Your task to perform on an android device: uninstall "Yahoo Mail" Image 0: 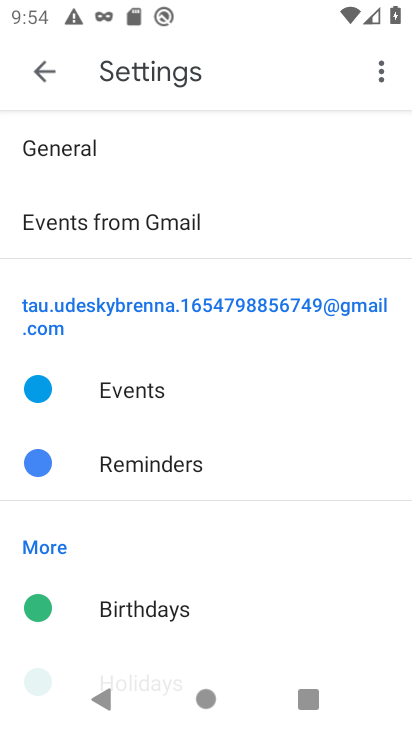
Step 0: press home button
Your task to perform on an android device: uninstall "Yahoo Mail" Image 1: 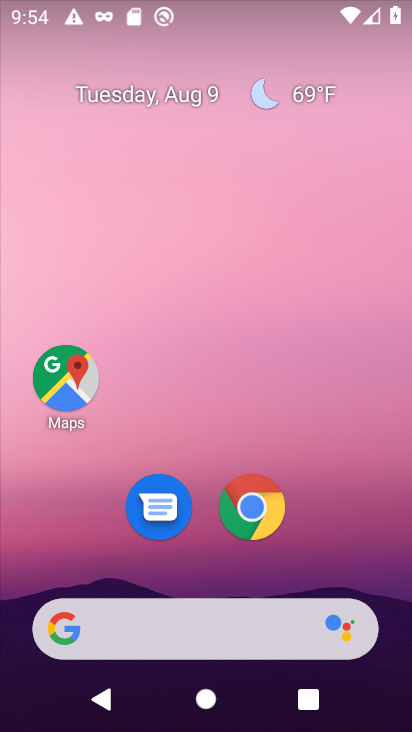
Step 1: drag from (162, 629) to (197, 101)
Your task to perform on an android device: uninstall "Yahoo Mail" Image 2: 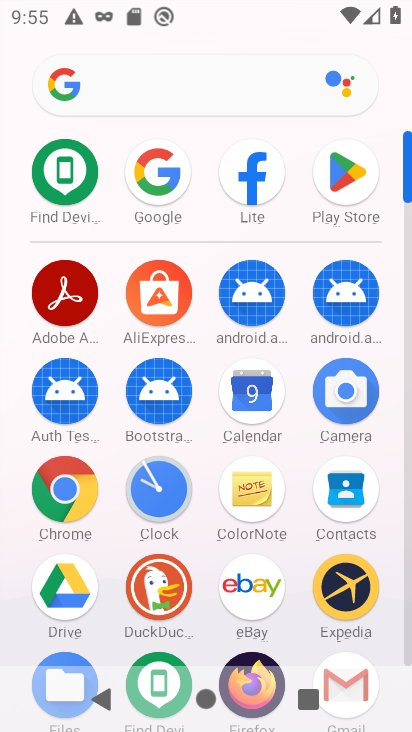
Step 2: click (347, 172)
Your task to perform on an android device: uninstall "Yahoo Mail" Image 3: 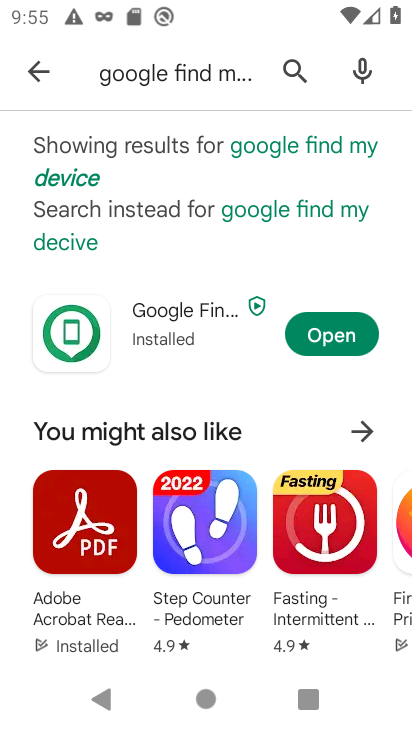
Step 3: click (288, 66)
Your task to perform on an android device: uninstall "Yahoo Mail" Image 4: 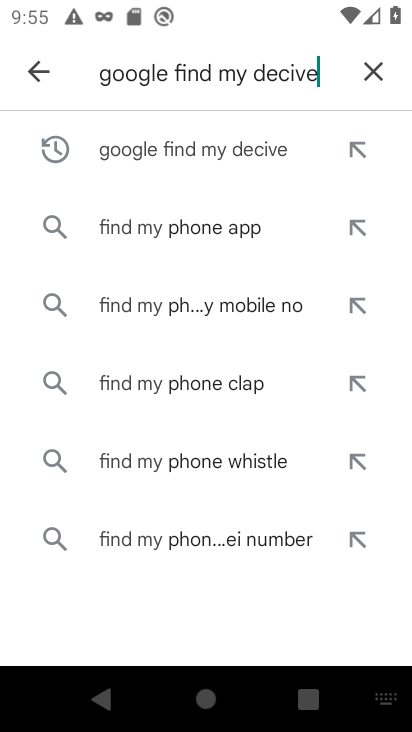
Step 4: click (376, 68)
Your task to perform on an android device: uninstall "Yahoo Mail" Image 5: 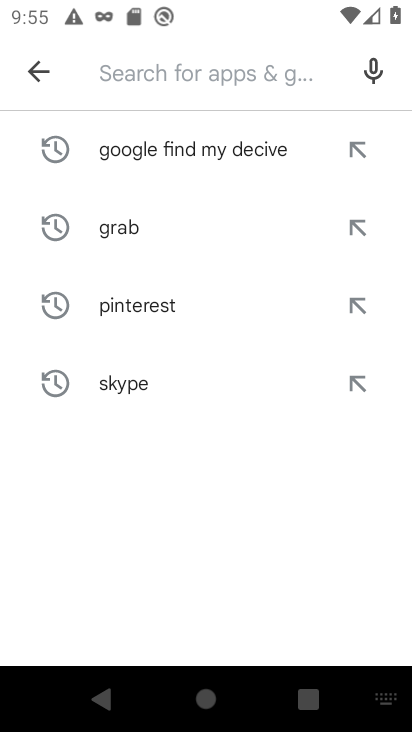
Step 5: type "Yahoo Mail"
Your task to perform on an android device: uninstall "Yahoo Mail" Image 6: 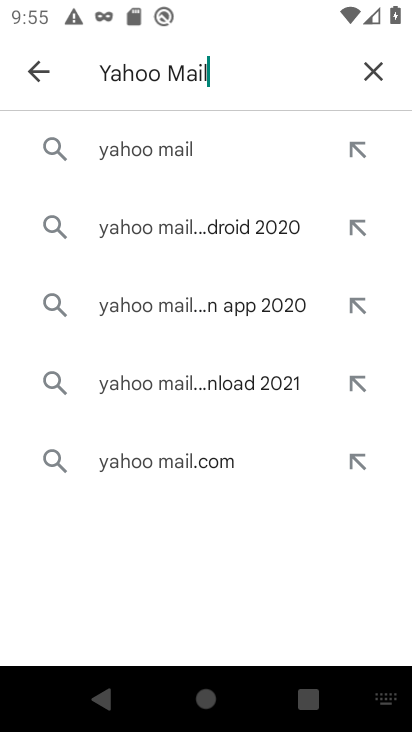
Step 6: click (190, 153)
Your task to perform on an android device: uninstall "Yahoo Mail" Image 7: 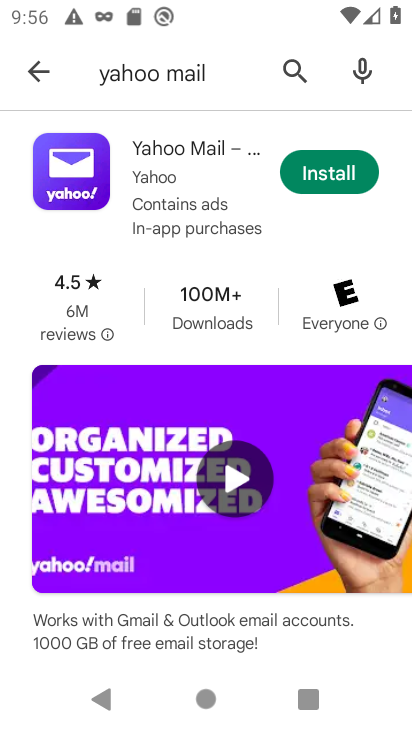
Step 7: task complete